Your task to perform on an android device: Open Google Chrome Image 0: 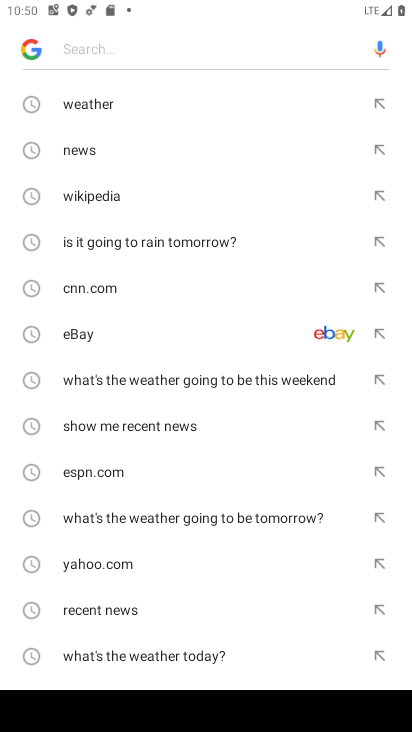
Step 0: press home button
Your task to perform on an android device: Open Google Chrome Image 1: 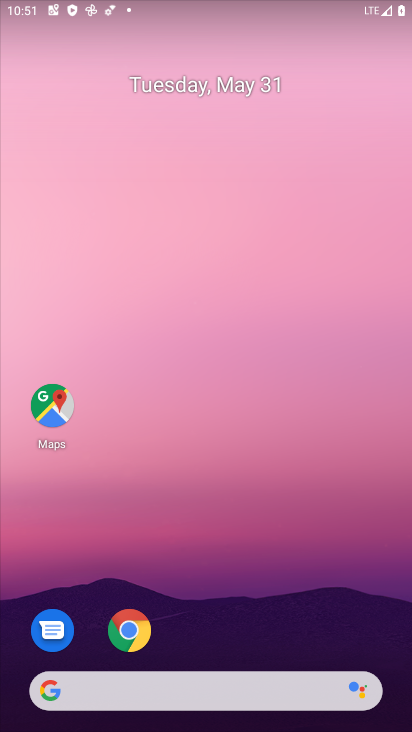
Step 1: click (142, 640)
Your task to perform on an android device: Open Google Chrome Image 2: 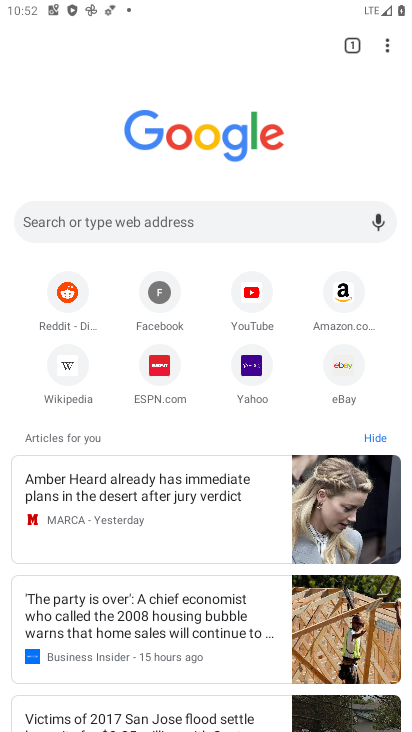
Step 2: task complete